Your task to perform on an android device: Open Chrome and go to settings Image 0: 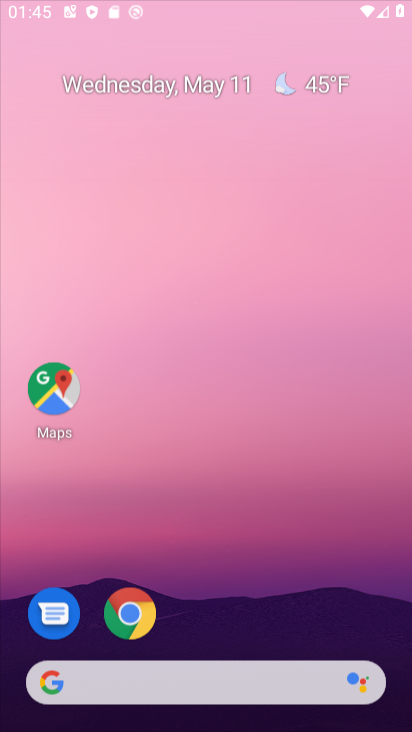
Step 0: press home button
Your task to perform on an android device: Open Chrome and go to settings Image 1: 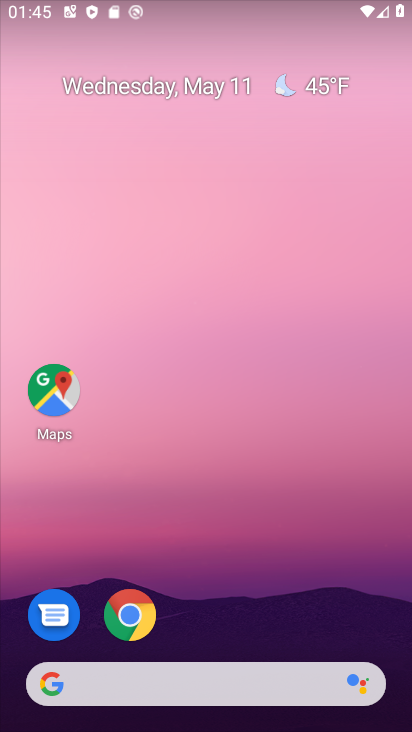
Step 1: drag from (315, 623) to (325, 210)
Your task to perform on an android device: Open Chrome and go to settings Image 2: 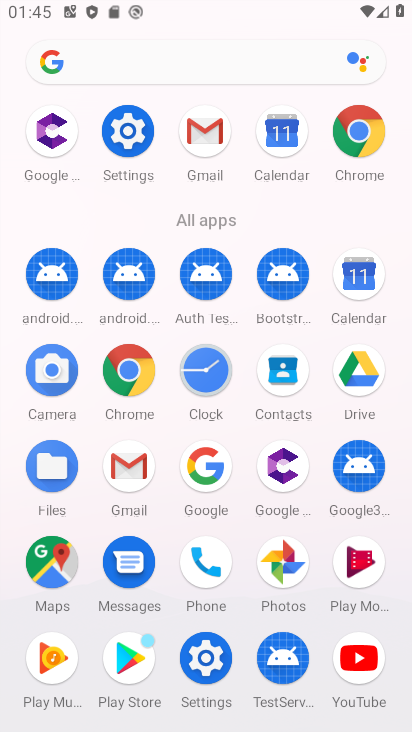
Step 2: click (137, 383)
Your task to perform on an android device: Open Chrome and go to settings Image 3: 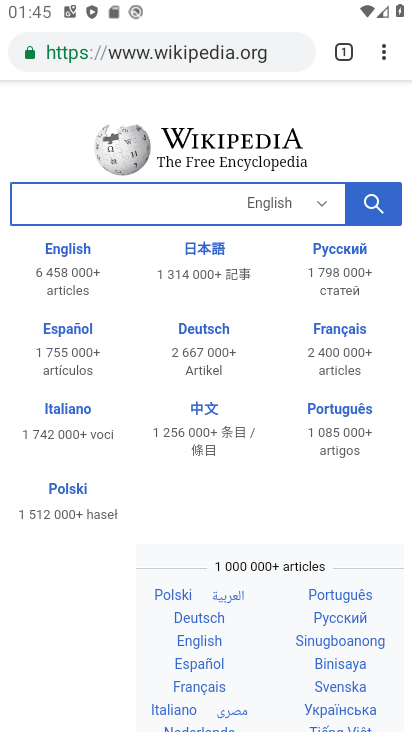
Step 3: task complete